Your task to perform on an android device: Do I have any events tomorrow? Image 0: 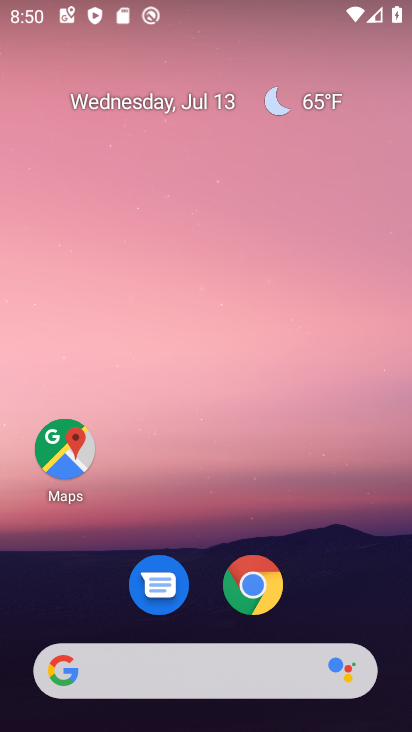
Step 0: drag from (252, 489) to (264, 56)
Your task to perform on an android device: Do I have any events tomorrow? Image 1: 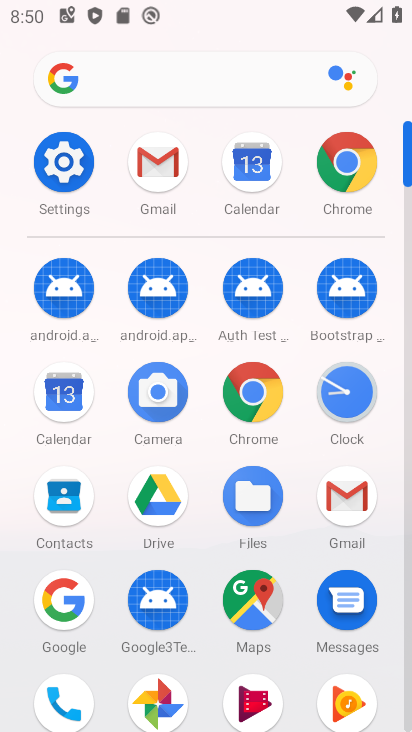
Step 1: click (256, 160)
Your task to perform on an android device: Do I have any events tomorrow? Image 2: 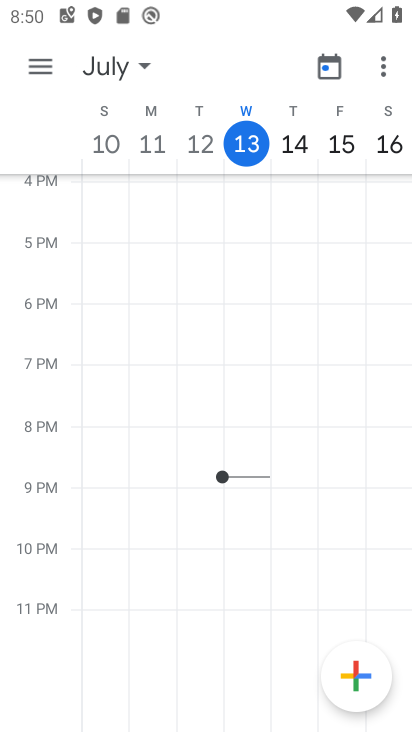
Step 2: drag from (273, 265) to (288, 570)
Your task to perform on an android device: Do I have any events tomorrow? Image 3: 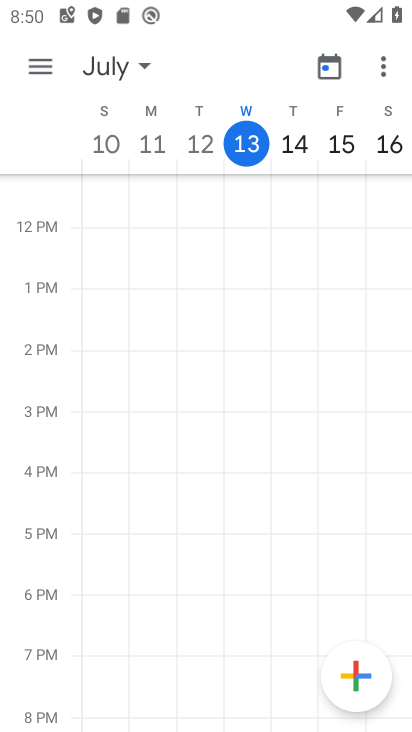
Step 3: drag from (270, 283) to (302, 616)
Your task to perform on an android device: Do I have any events tomorrow? Image 4: 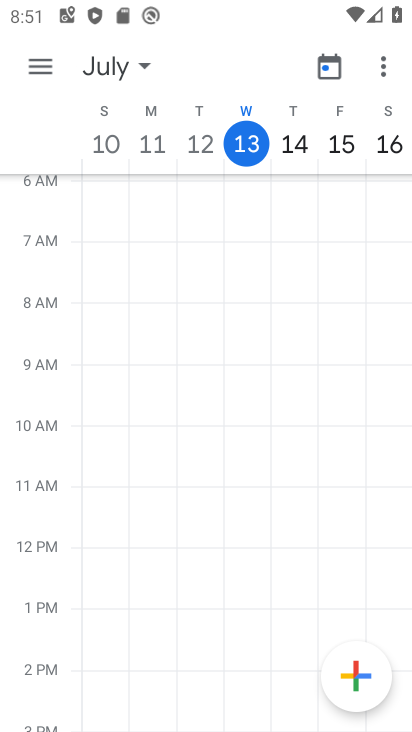
Step 4: drag from (275, 262) to (309, 659)
Your task to perform on an android device: Do I have any events tomorrow? Image 5: 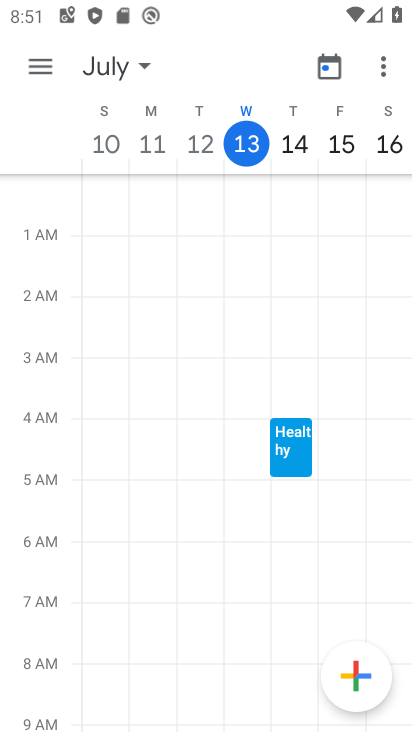
Step 5: click (301, 447)
Your task to perform on an android device: Do I have any events tomorrow? Image 6: 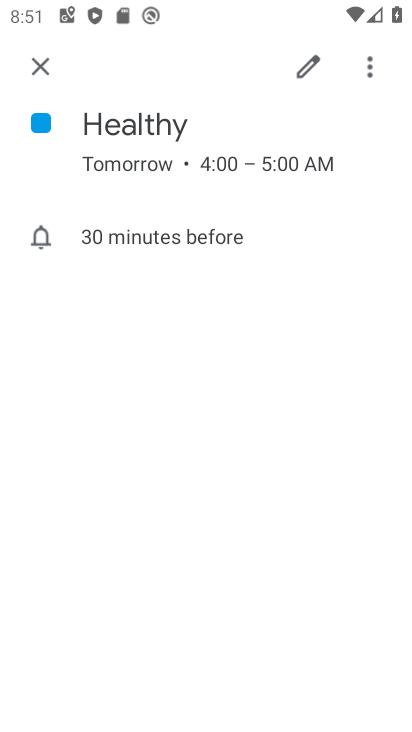
Step 6: task complete